Your task to perform on an android device: Go to privacy settings Image 0: 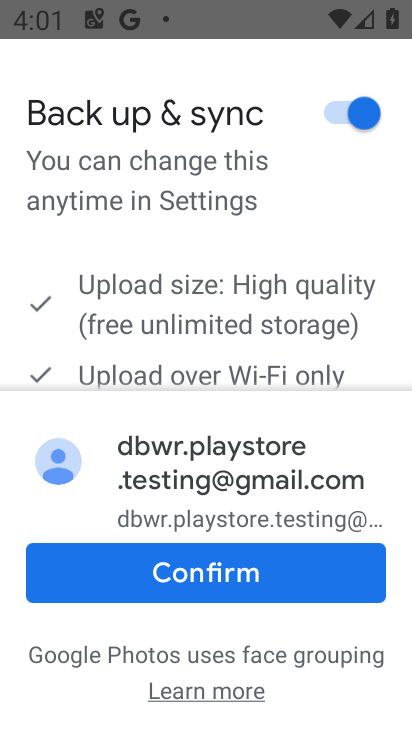
Step 0: press home button
Your task to perform on an android device: Go to privacy settings Image 1: 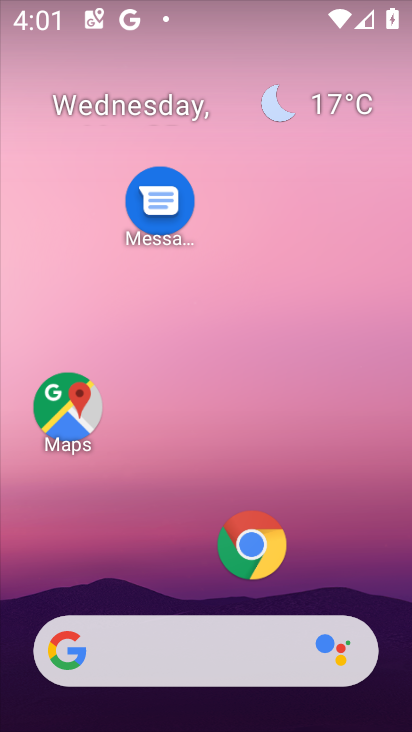
Step 1: drag from (325, 560) to (261, 33)
Your task to perform on an android device: Go to privacy settings Image 2: 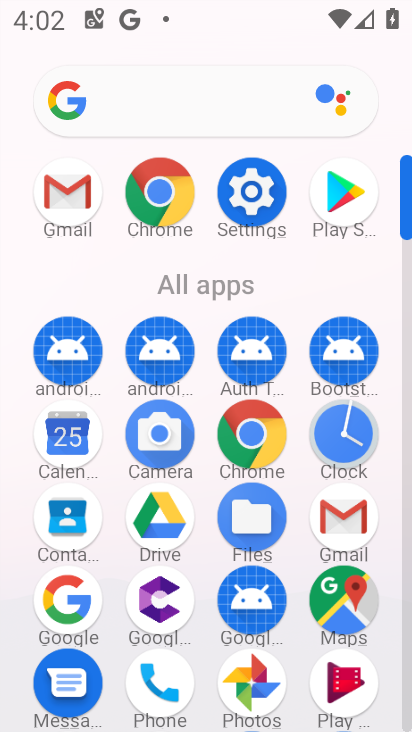
Step 2: click (247, 192)
Your task to perform on an android device: Go to privacy settings Image 3: 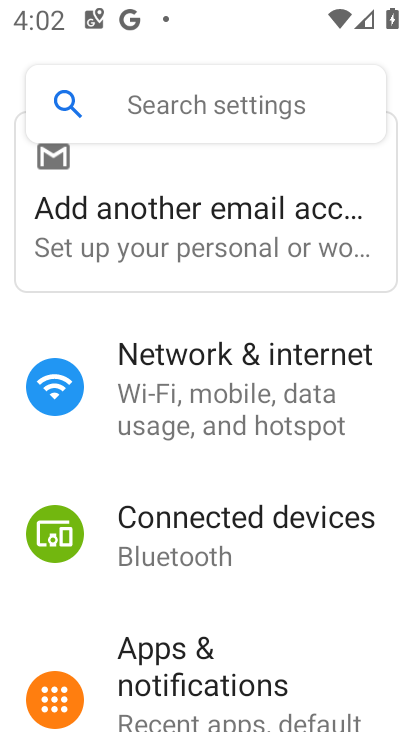
Step 3: drag from (263, 587) to (258, 153)
Your task to perform on an android device: Go to privacy settings Image 4: 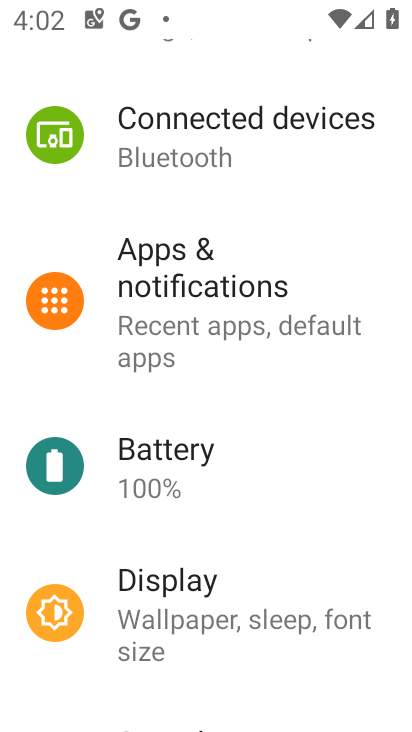
Step 4: drag from (273, 688) to (314, 138)
Your task to perform on an android device: Go to privacy settings Image 5: 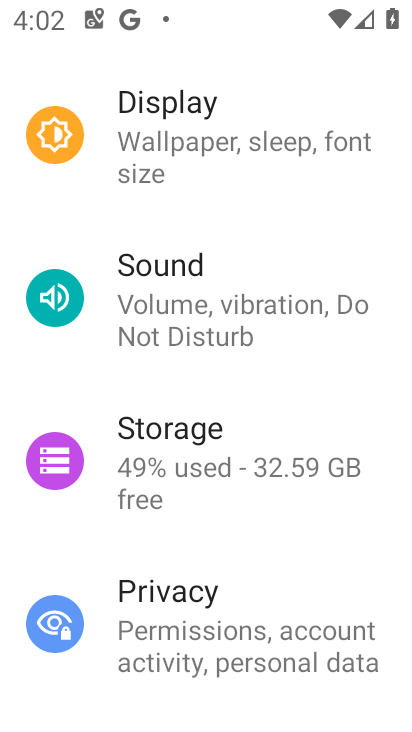
Step 5: click (237, 652)
Your task to perform on an android device: Go to privacy settings Image 6: 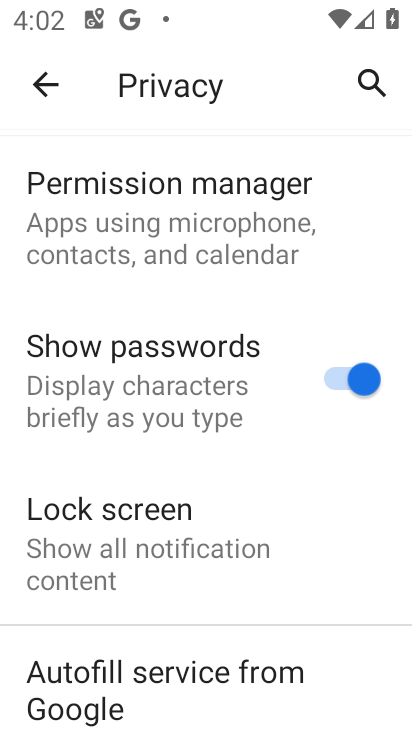
Step 6: task complete